Your task to perform on an android device: Open Google Chrome Image 0: 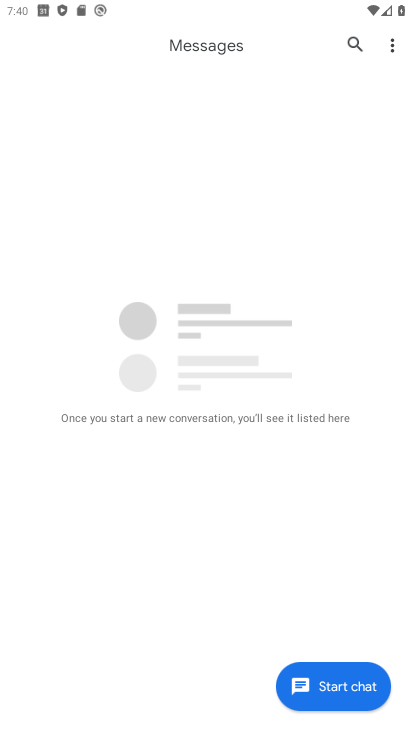
Step 0: press home button
Your task to perform on an android device: Open Google Chrome Image 1: 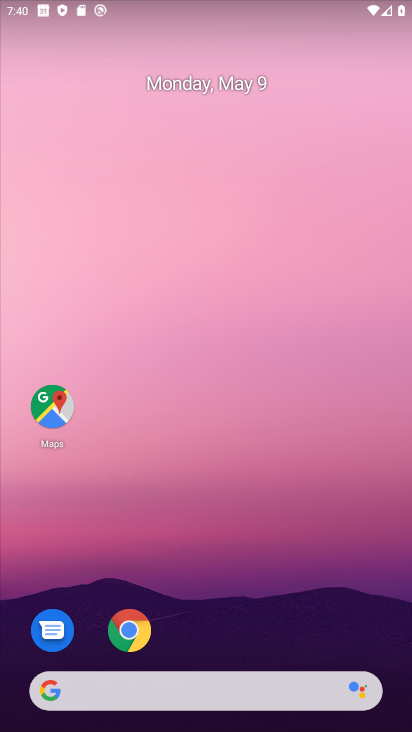
Step 1: drag from (311, 369) to (276, 143)
Your task to perform on an android device: Open Google Chrome Image 2: 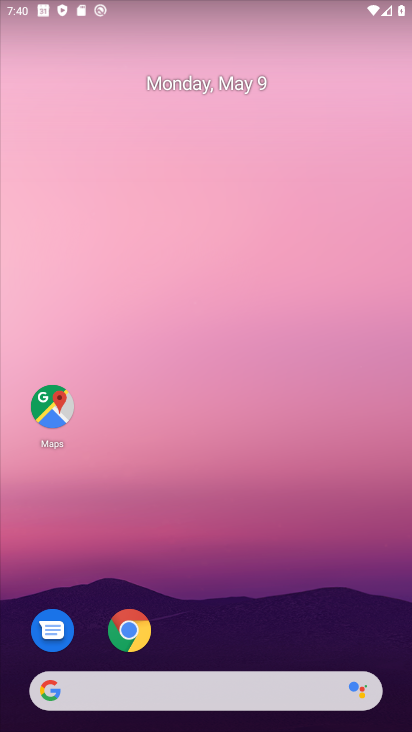
Step 2: drag from (314, 624) to (269, 142)
Your task to perform on an android device: Open Google Chrome Image 3: 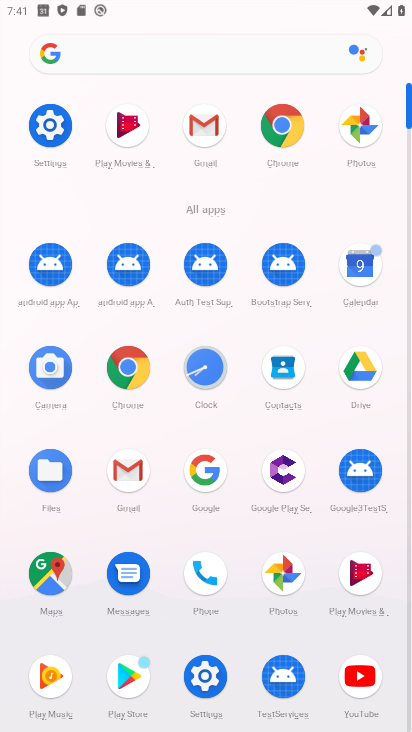
Step 3: click (123, 361)
Your task to perform on an android device: Open Google Chrome Image 4: 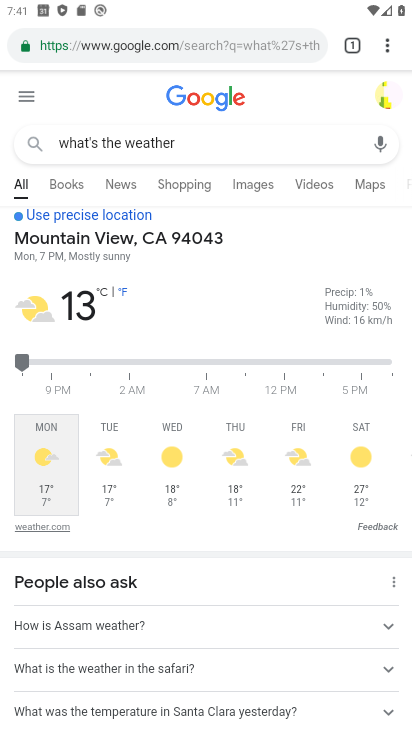
Step 4: task complete